Your task to perform on an android device: Add "apple airpods" to the cart on walmart.com Image 0: 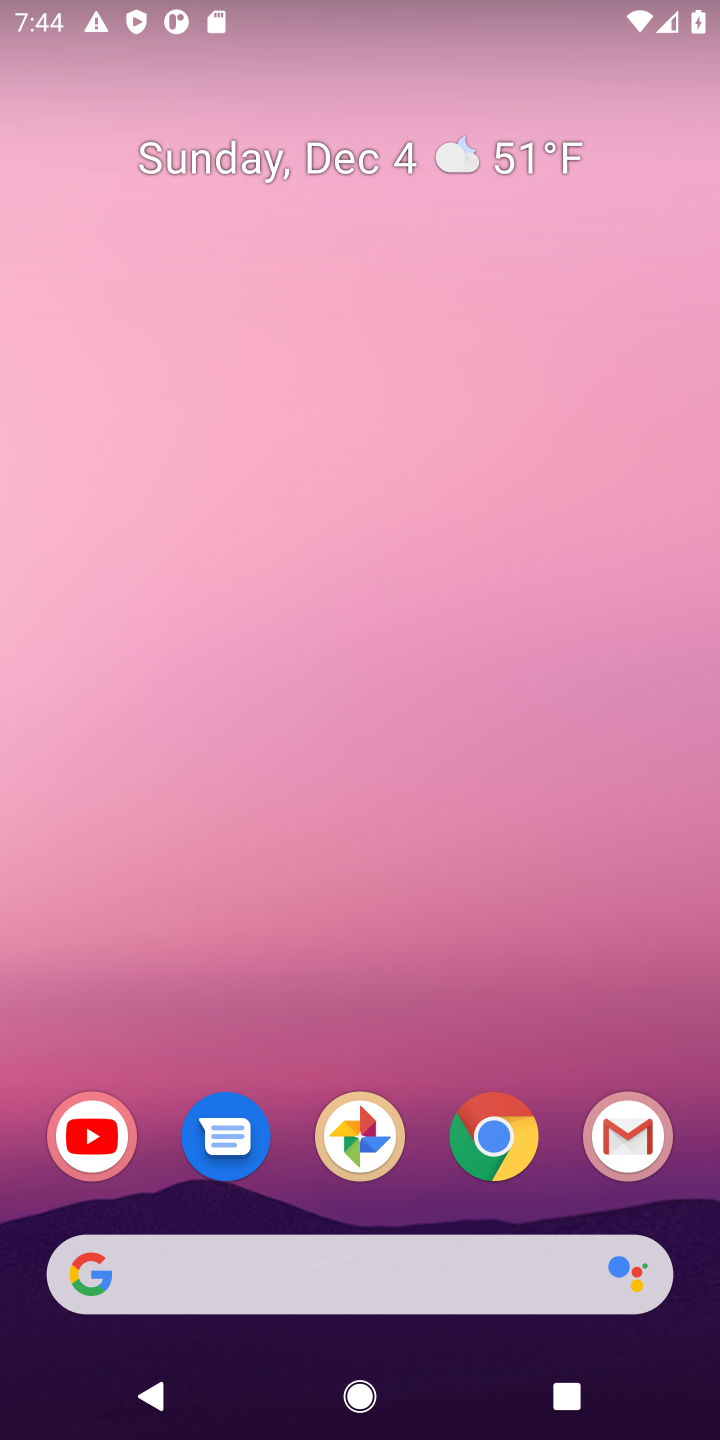
Step 0: click (507, 1137)
Your task to perform on an android device: Add "apple airpods" to the cart on walmart.com Image 1: 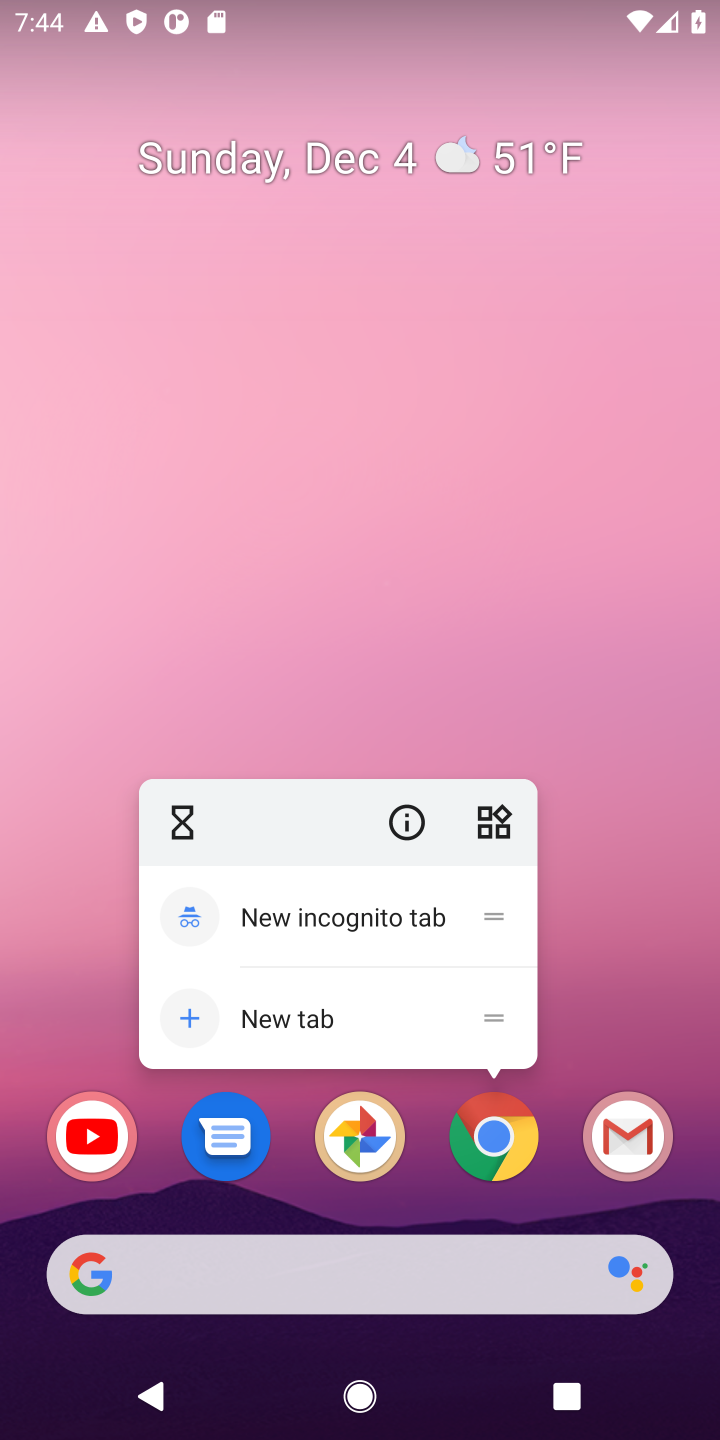
Step 1: click (507, 1138)
Your task to perform on an android device: Add "apple airpods" to the cart on walmart.com Image 2: 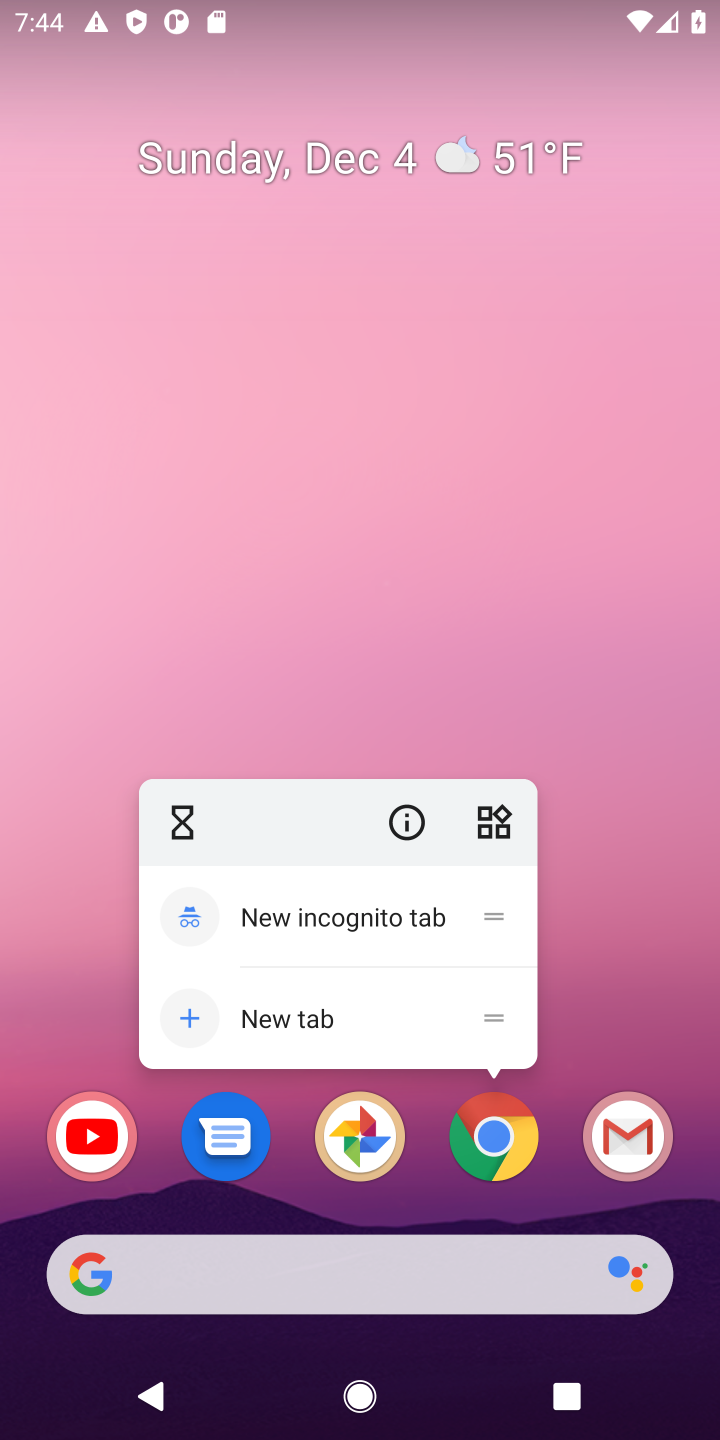
Step 2: click (505, 1137)
Your task to perform on an android device: Add "apple airpods" to the cart on walmart.com Image 3: 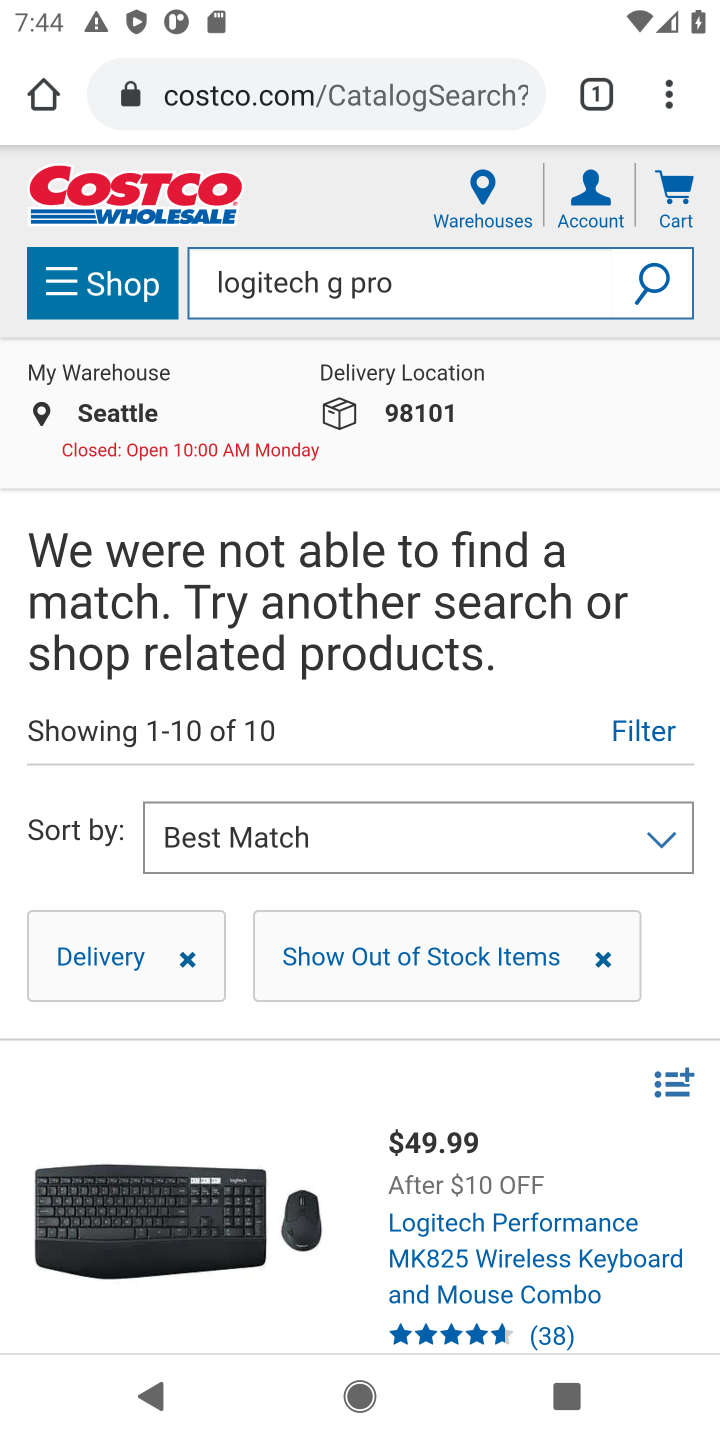
Step 3: click (286, 88)
Your task to perform on an android device: Add "apple airpods" to the cart on walmart.com Image 4: 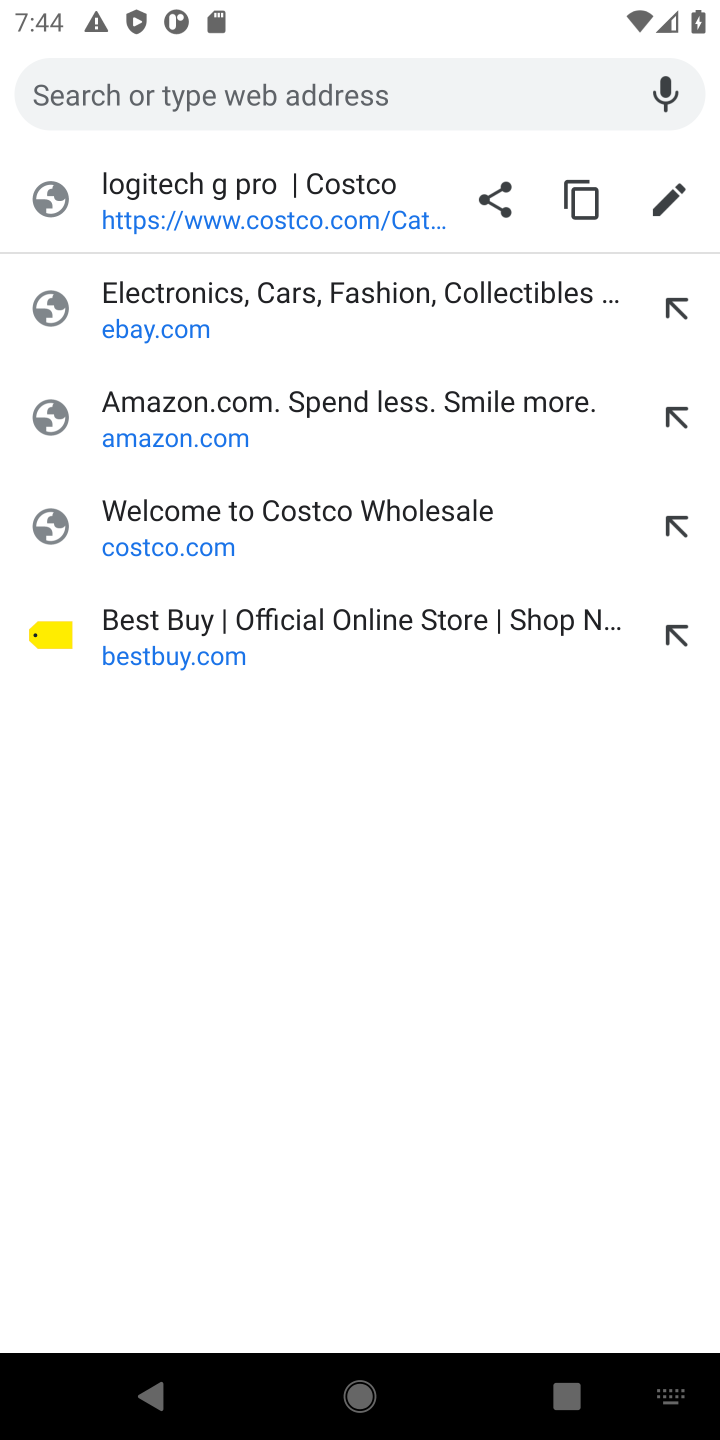
Step 4: type "walmart.com"
Your task to perform on an android device: Add "apple airpods" to the cart on walmart.com Image 5: 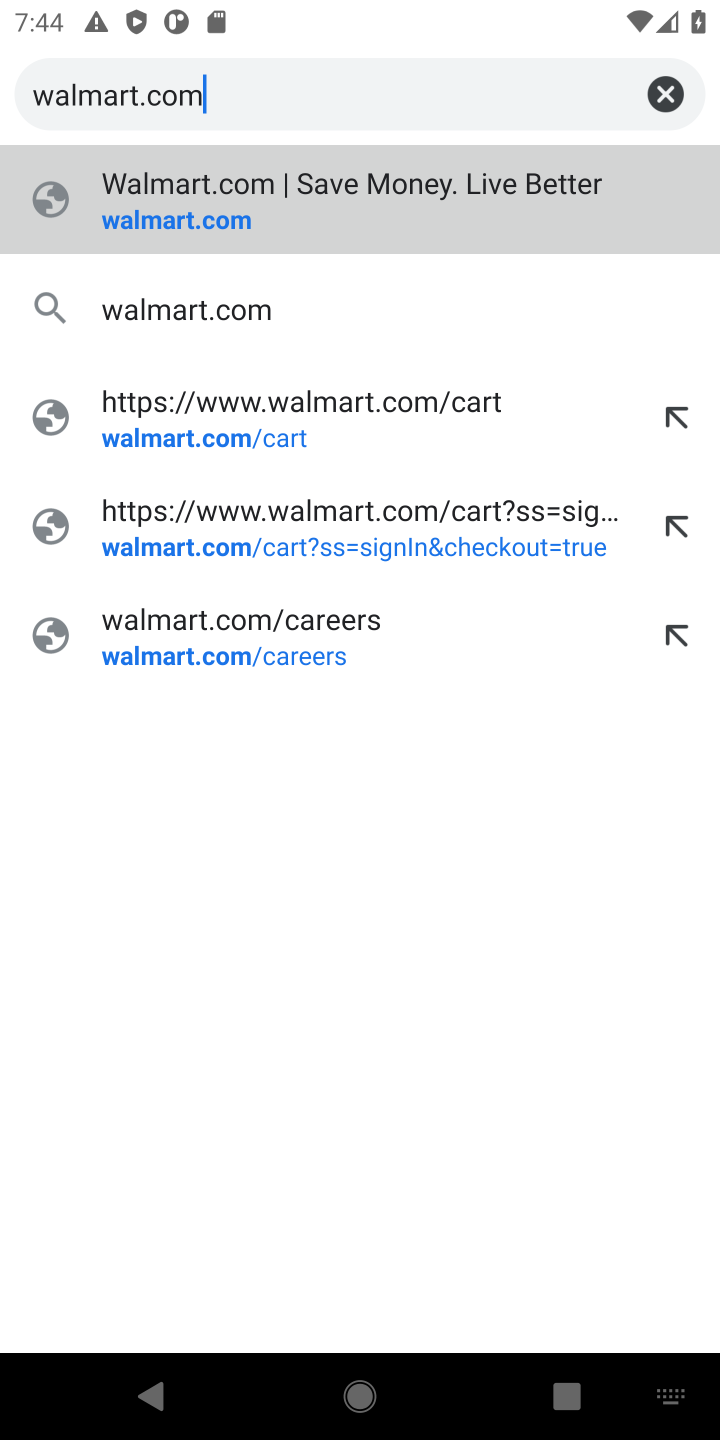
Step 5: click (190, 233)
Your task to perform on an android device: Add "apple airpods" to the cart on walmart.com Image 6: 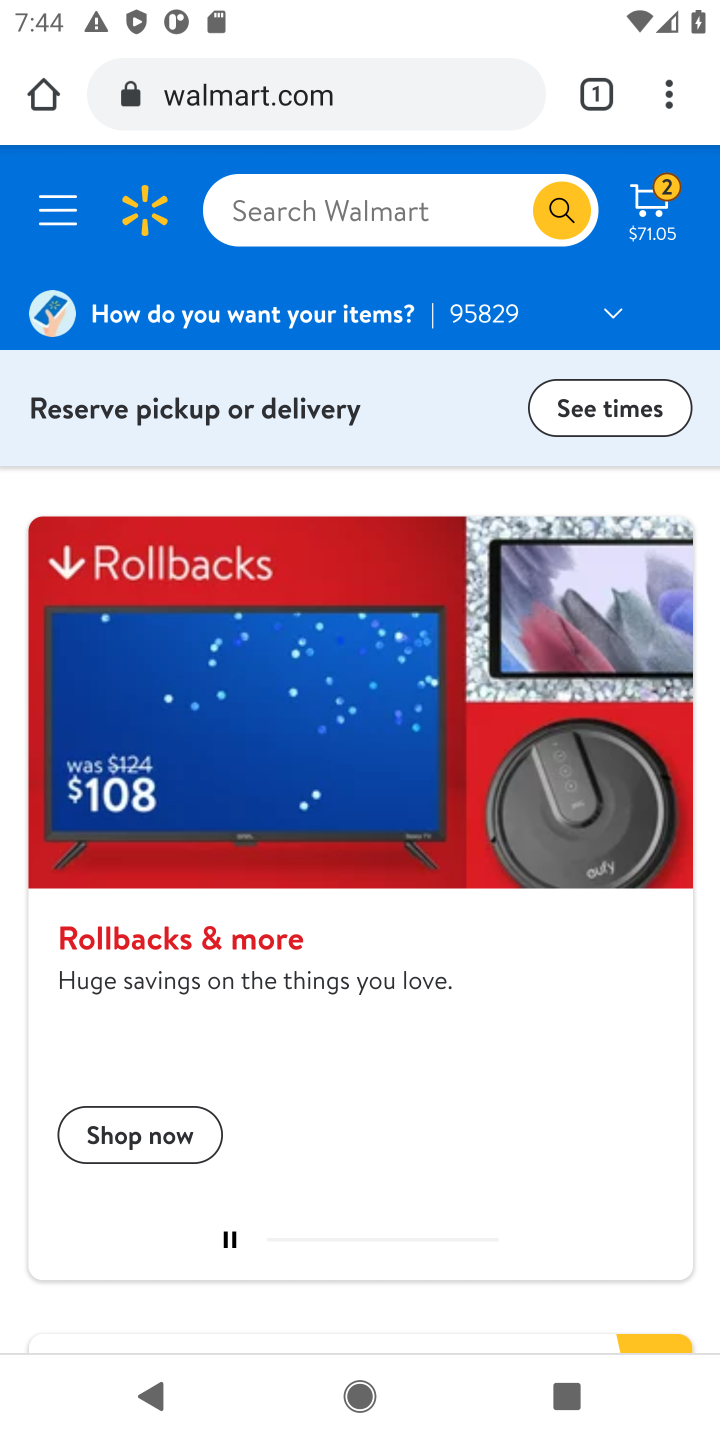
Step 6: click (279, 206)
Your task to perform on an android device: Add "apple airpods" to the cart on walmart.com Image 7: 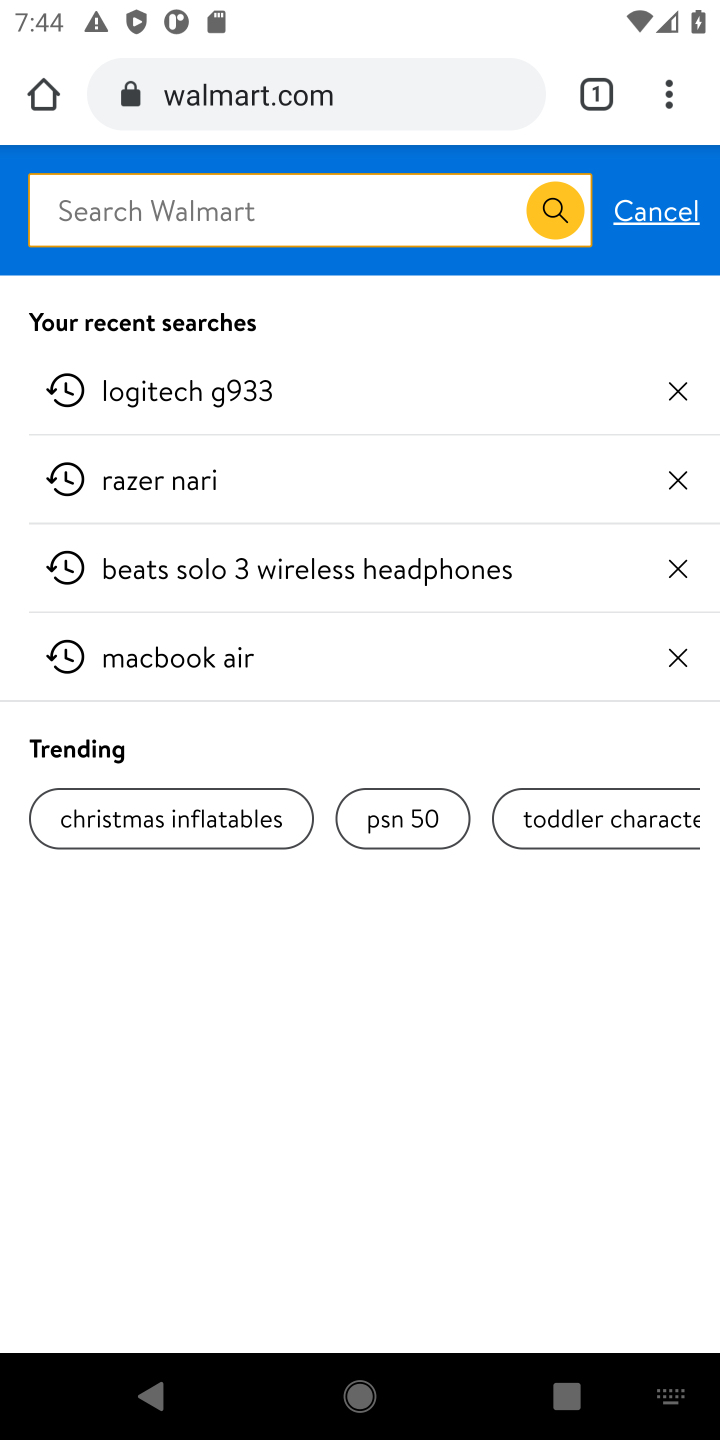
Step 7: type "apple airpods"
Your task to perform on an android device: Add "apple airpods" to the cart on walmart.com Image 8: 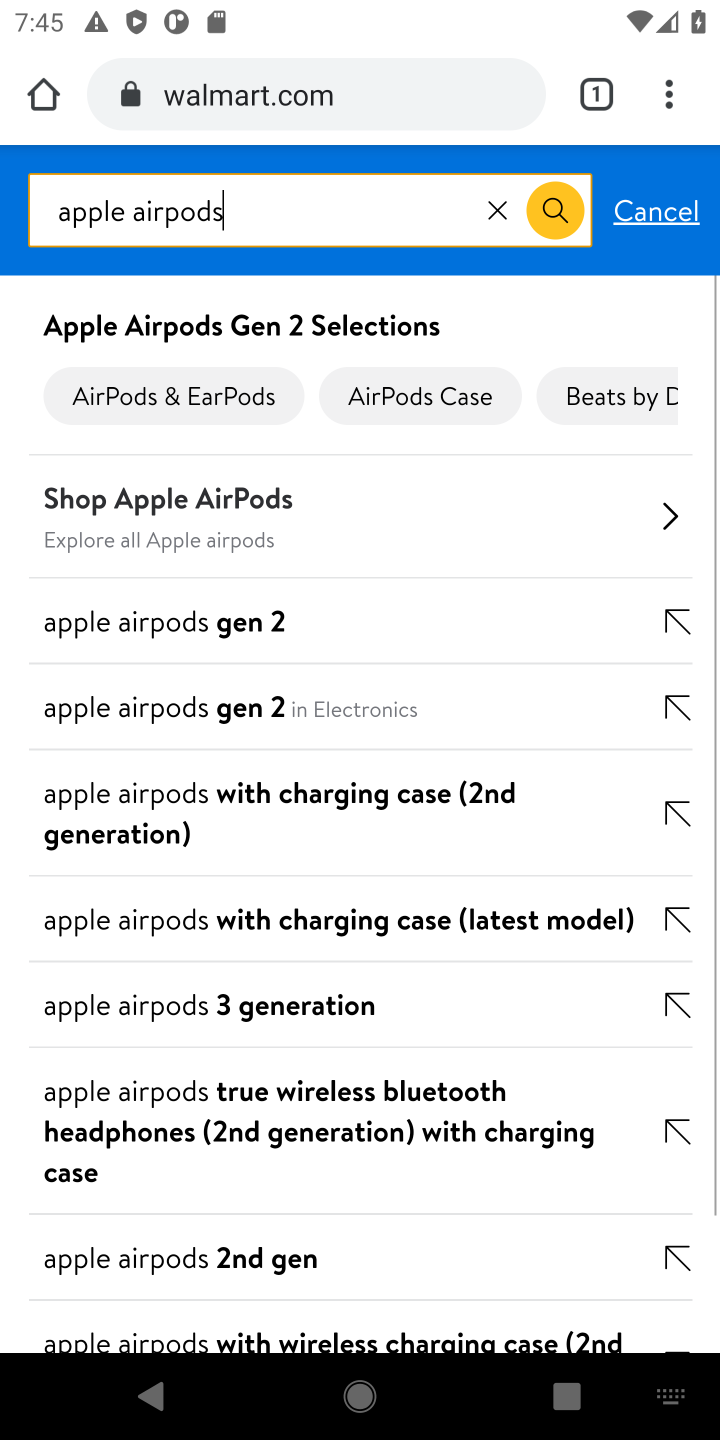
Step 8: click (557, 202)
Your task to perform on an android device: Add "apple airpods" to the cart on walmart.com Image 9: 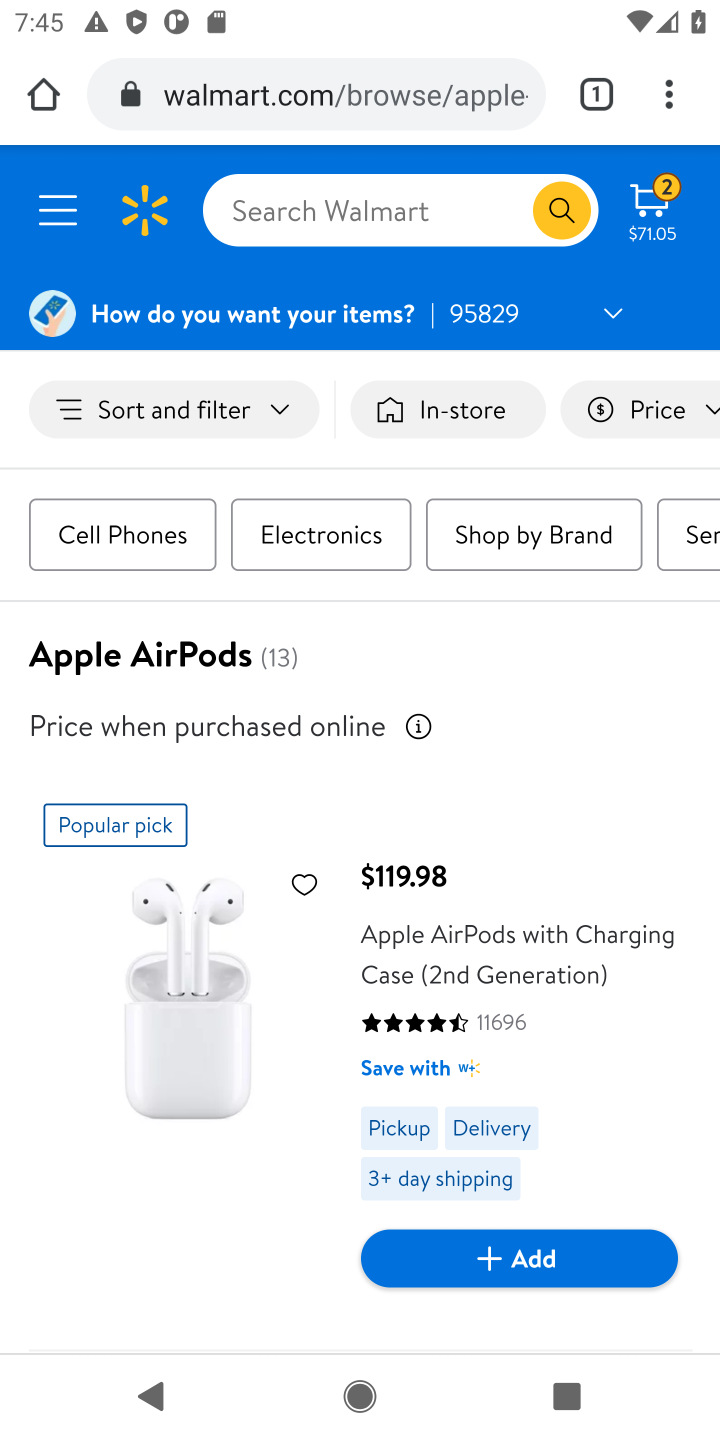
Step 9: drag from (589, 1079) to (613, 641)
Your task to perform on an android device: Add "apple airpods" to the cart on walmart.com Image 10: 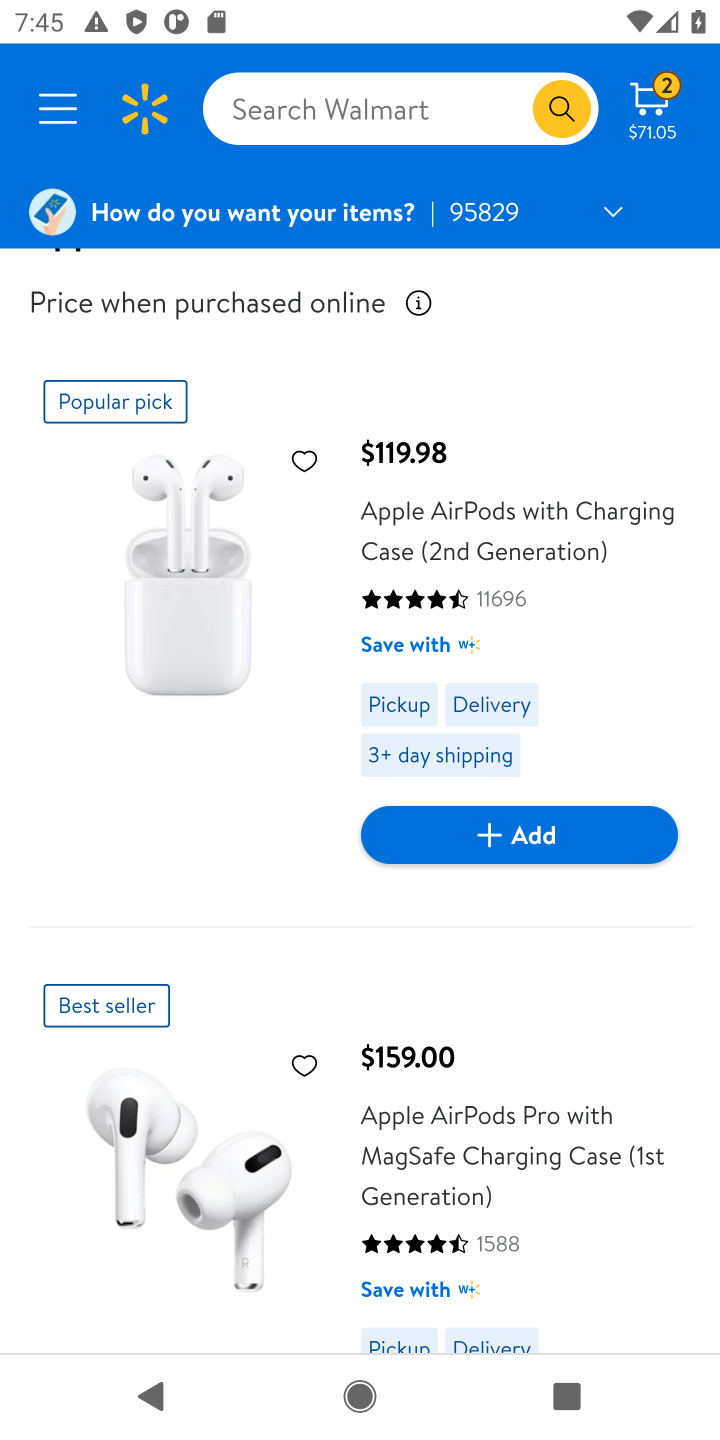
Step 10: click (531, 828)
Your task to perform on an android device: Add "apple airpods" to the cart on walmart.com Image 11: 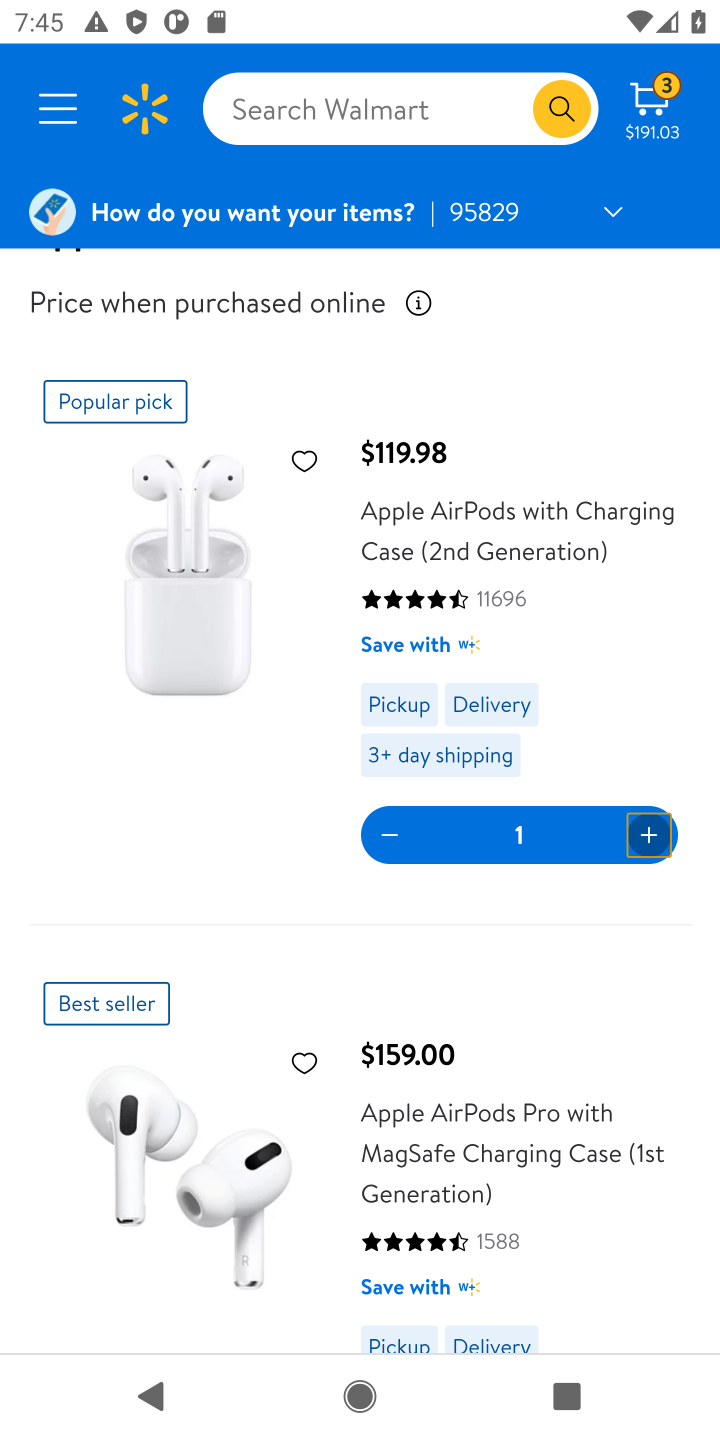
Step 11: task complete